Your task to perform on an android device: Search for Mexican restaurants on Maps Image 0: 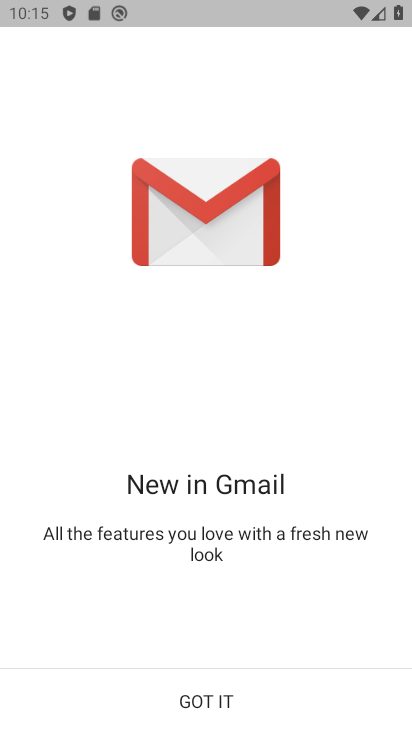
Step 0: click (205, 660)
Your task to perform on an android device: Search for Mexican restaurants on Maps Image 1: 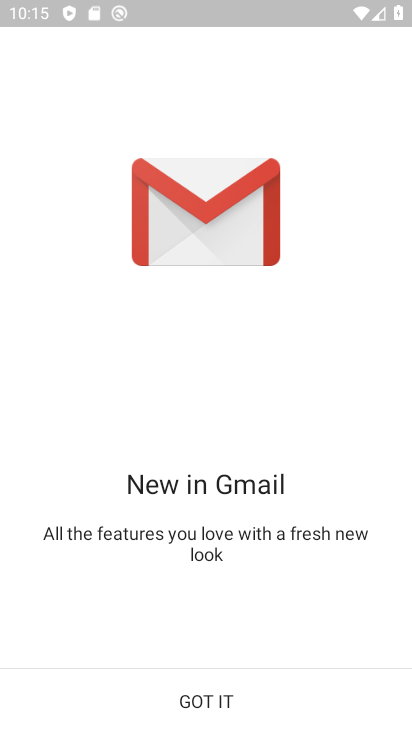
Step 1: click (198, 693)
Your task to perform on an android device: Search for Mexican restaurants on Maps Image 2: 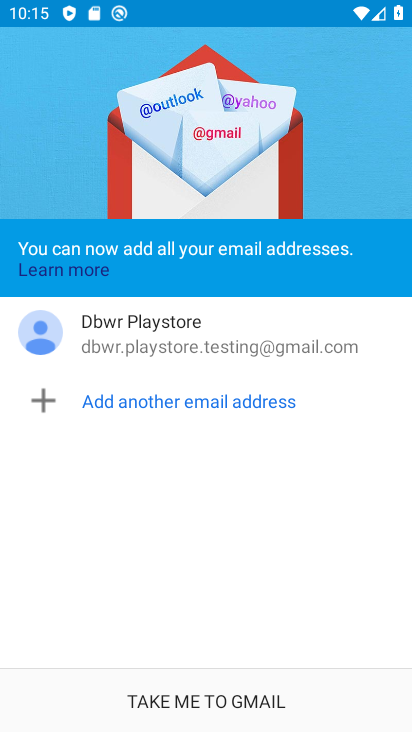
Step 2: press home button
Your task to perform on an android device: Search for Mexican restaurants on Maps Image 3: 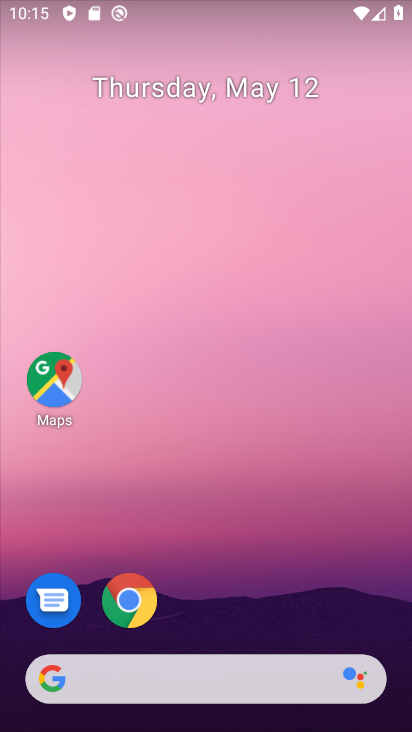
Step 3: click (69, 370)
Your task to perform on an android device: Search for Mexican restaurants on Maps Image 4: 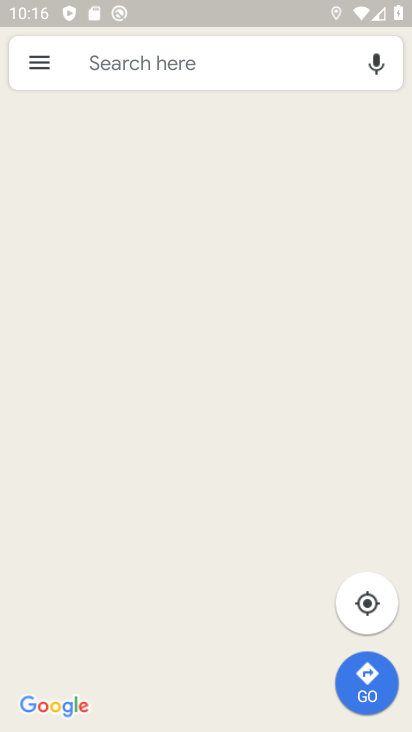
Step 4: click (173, 58)
Your task to perform on an android device: Search for Mexican restaurants on Maps Image 5: 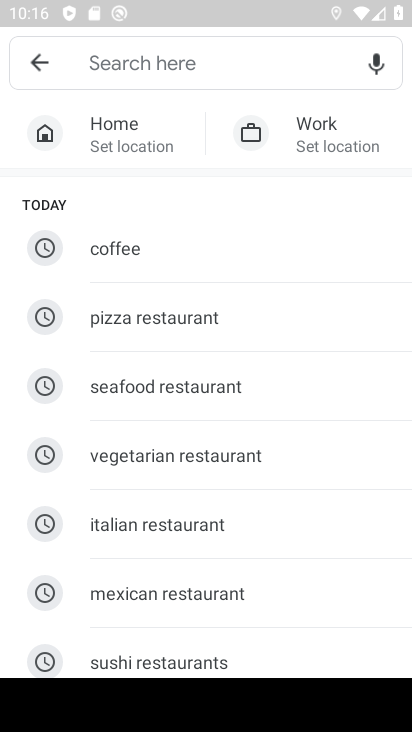
Step 5: type "Mexican restaurants"
Your task to perform on an android device: Search for Mexican restaurants on Maps Image 6: 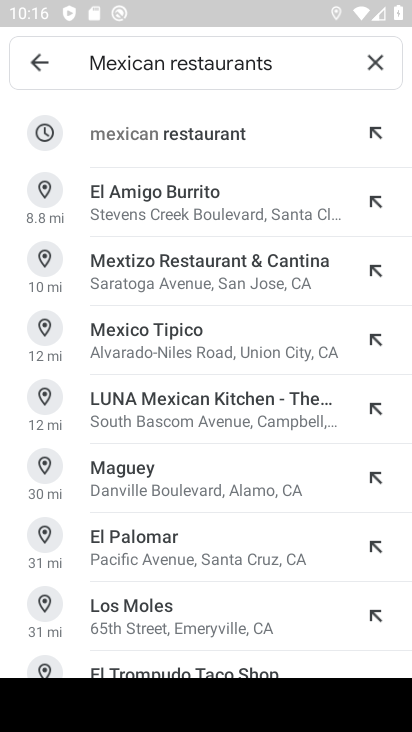
Step 6: click (152, 137)
Your task to perform on an android device: Search for Mexican restaurants on Maps Image 7: 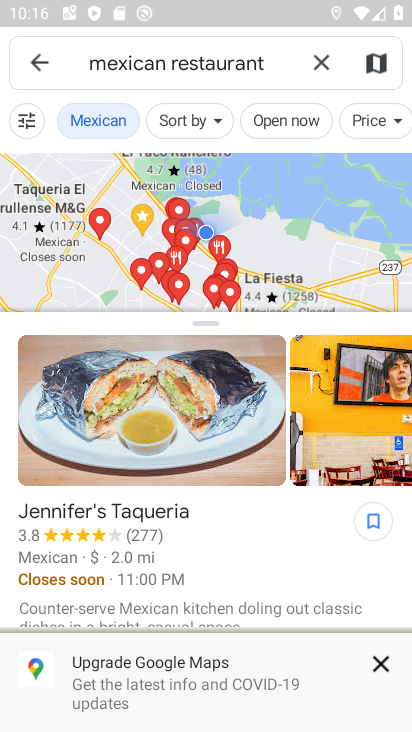
Step 7: task complete